Your task to perform on an android device: toggle javascript in the chrome app Image 0: 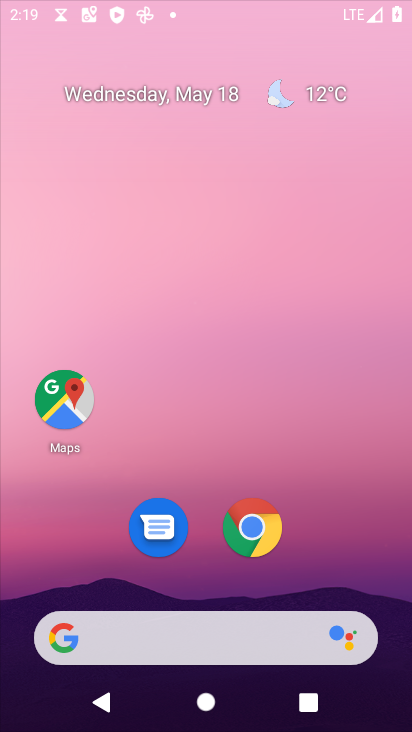
Step 0: press home button
Your task to perform on an android device: toggle javascript in the chrome app Image 1: 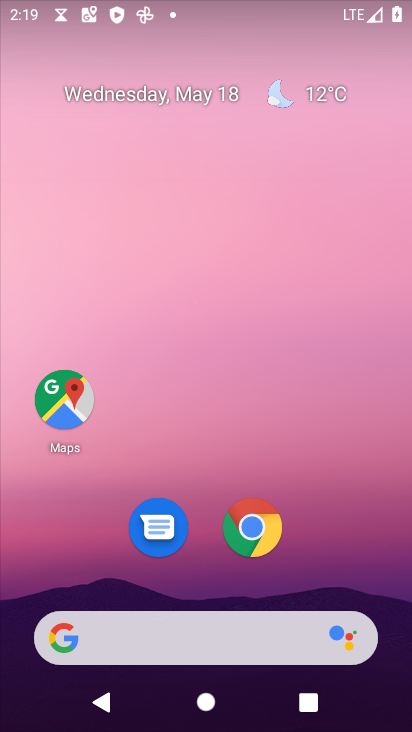
Step 1: press home button
Your task to perform on an android device: toggle javascript in the chrome app Image 2: 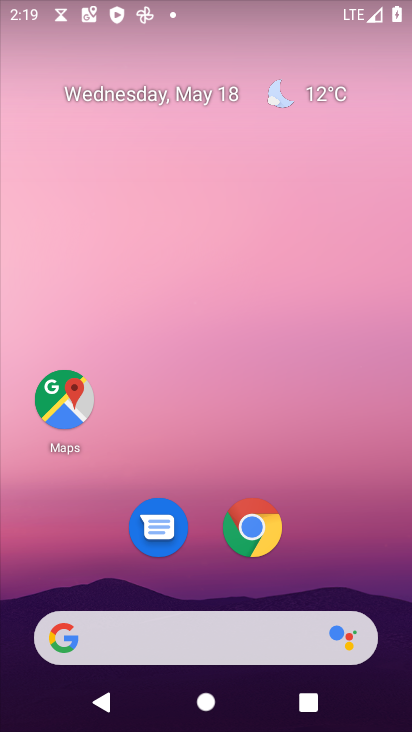
Step 2: click (263, 526)
Your task to perform on an android device: toggle javascript in the chrome app Image 3: 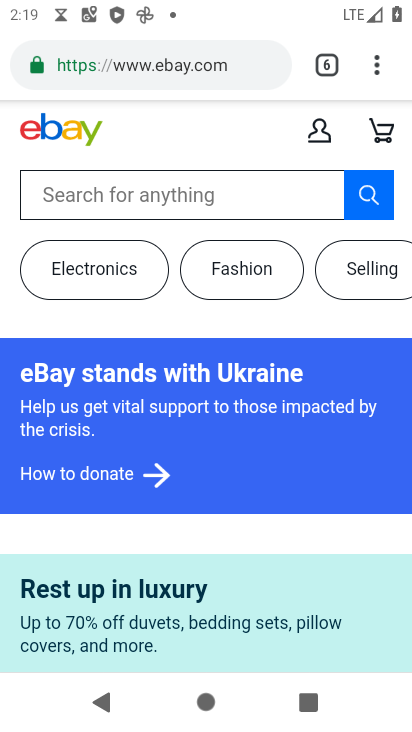
Step 3: click (370, 62)
Your task to perform on an android device: toggle javascript in the chrome app Image 4: 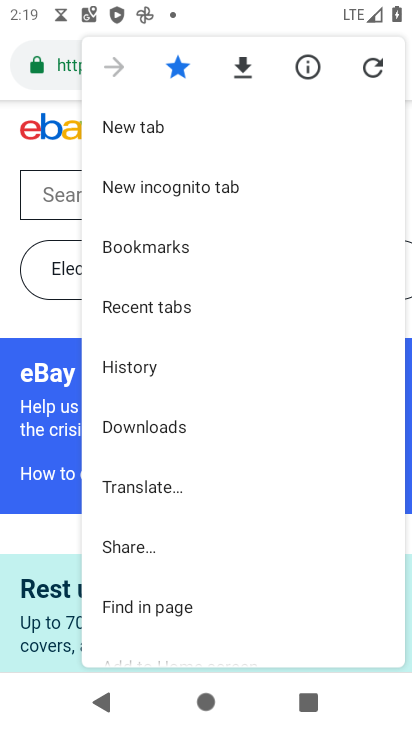
Step 4: drag from (244, 551) to (210, 165)
Your task to perform on an android device: toggle javascript in the chrome app Image 5: 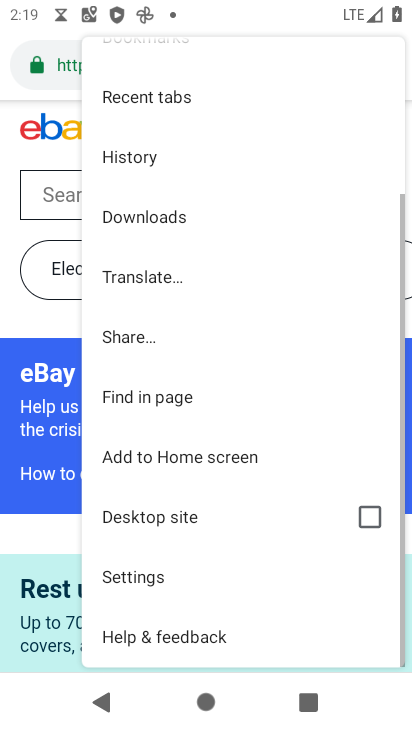
Step 5: click (191, 568)
Your task to perform on an android device: toggle javascript in the chrome app Image 6: 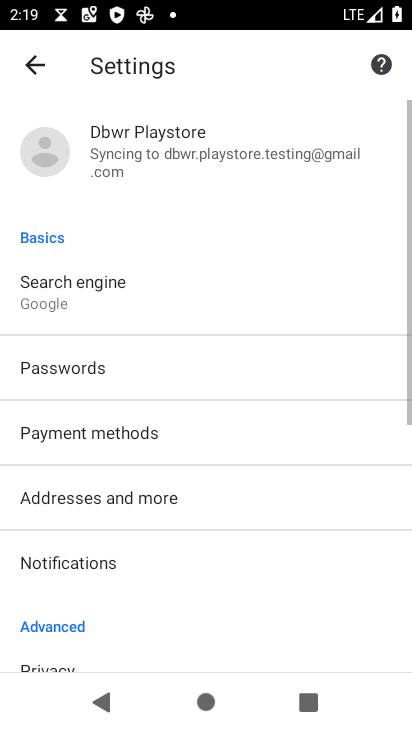
Step 6: drag from (210, 504) to (176, 118)
Your task to perform on an android device: toggle javascript in the chrome app Image 7: 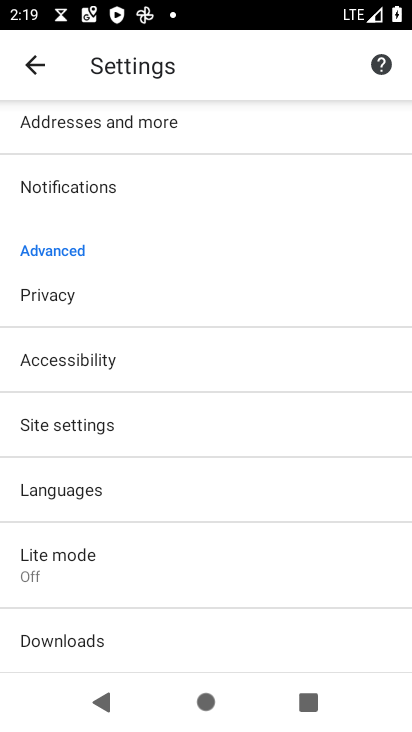
Step 7: click (134, 407)
Your task to perform on an android device: toggle javascript in the chrome app Image 8: 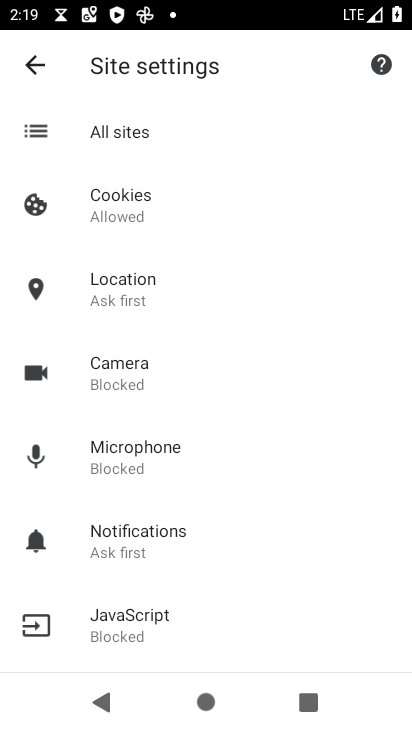
Step 8: click (169, 616)
Your task to perform on an android device: toggle javascript in the chrome app Image 9: 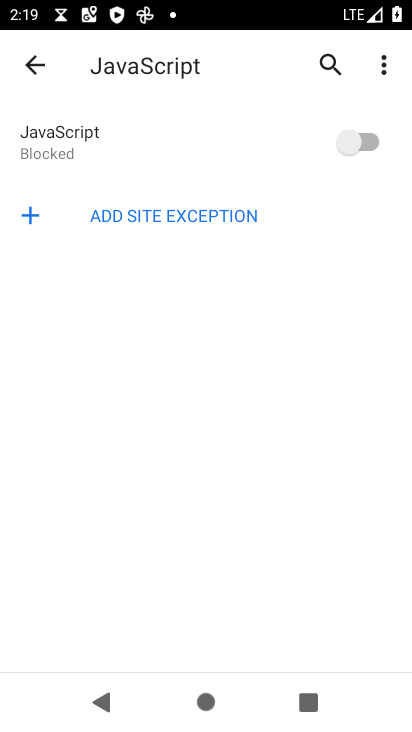
Step 9: click (370, 139)
Your task to perform on an android device: toggle javascript in the chrome app Image 10: 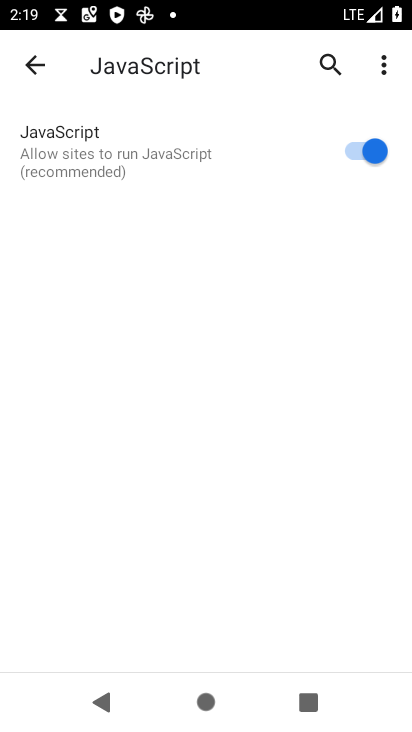
Step 10: task complete